Your task to perform on an android device: Open network settings Image 0: 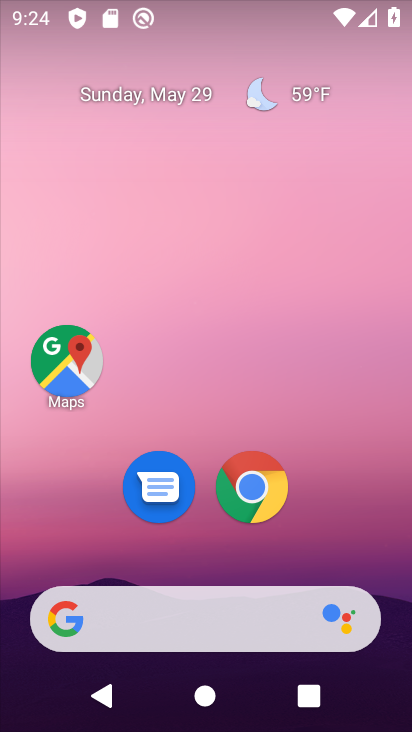
Step 0: drag from (156, 728) to (194, 47)
Your task to perform on an android device: Open network settings Image 1: 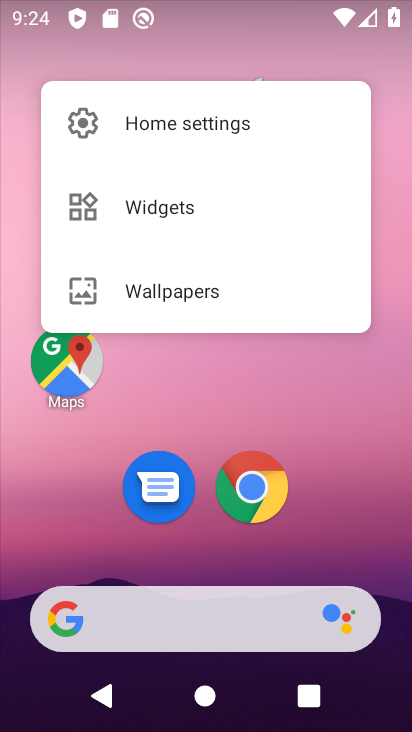
Step 1: click (357, 437)
Your task to perform on an android device: Open network settings Image 2: 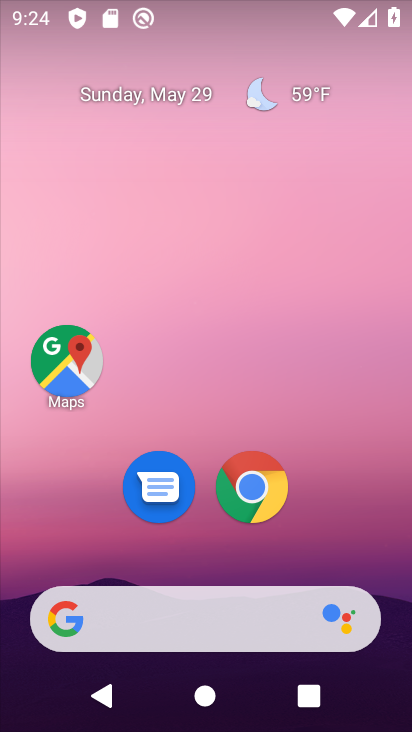
Step 2: drag from (154, 728) to (159, 55)
Your task to perform on an android device: Open network settings Image 3: 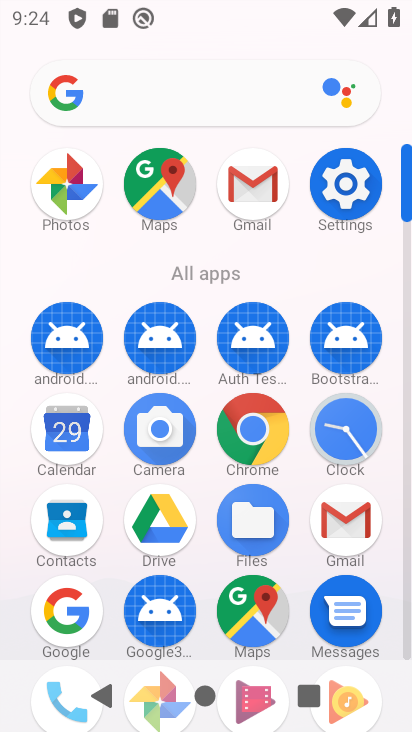
Step 3: click (363, 200)
Your task to perform on an android device: Open network settings Image 4: 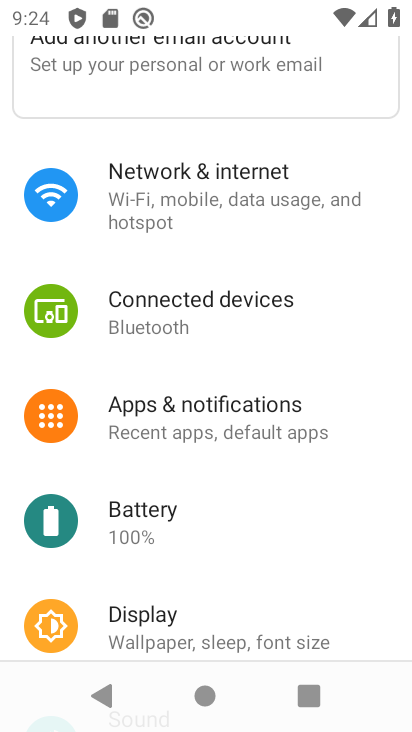
Step 4: click (201, 210)
Your task to perform on an android device: Open network settings Image 5: 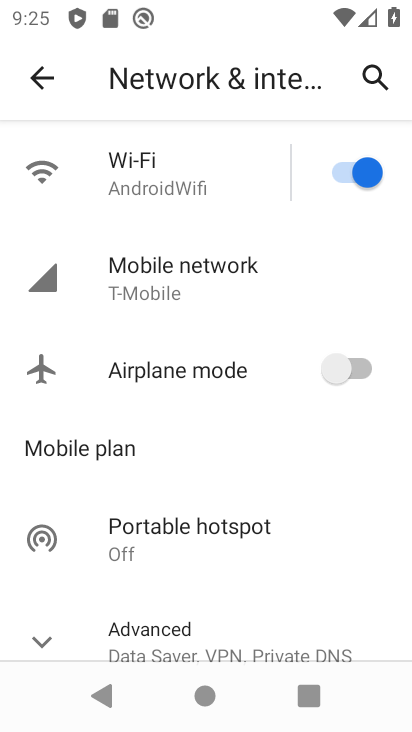
Step 5: drag from (211, 462) to (226, 130)
Your task to perform on an android device: Open network settings Image 6: 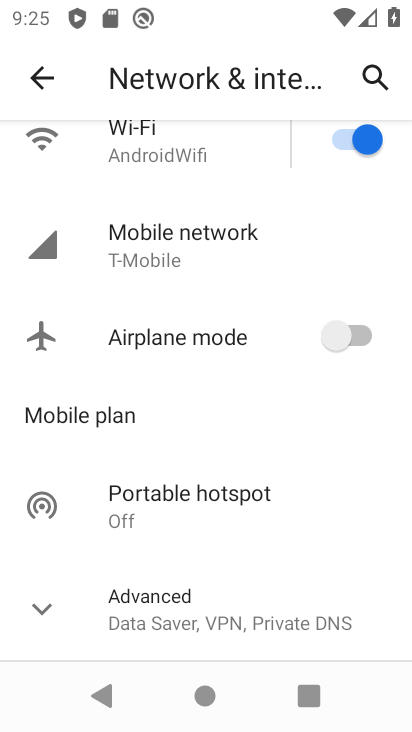
Step 6: click (229, 251)
Your task to perform on an android device: Open network settings Image 7: 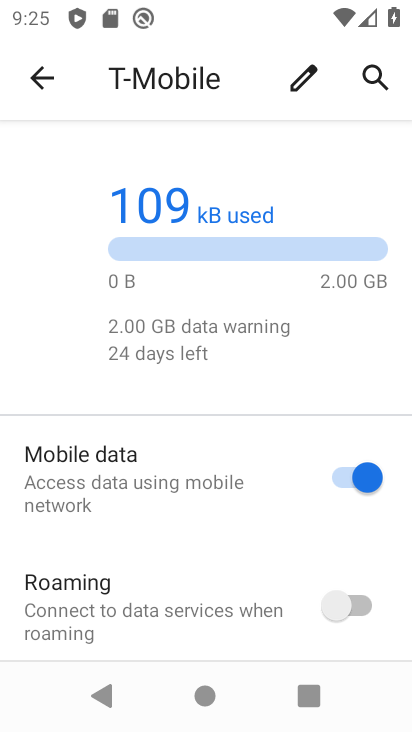
Step 7: drag from (183, 454) to (197, 186)
Your task to perform on an android device: Open network settings Image 8: 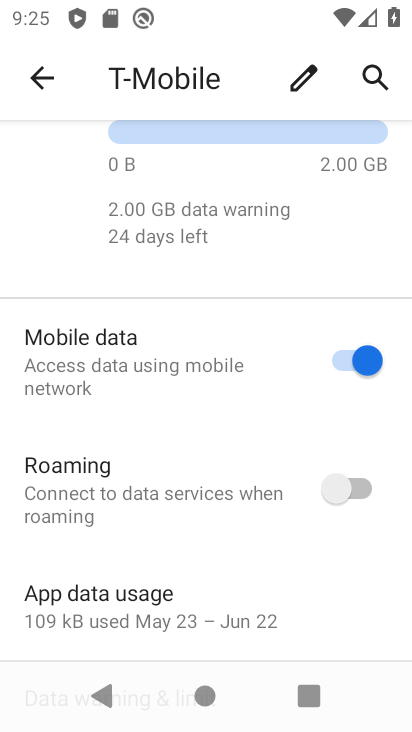
Step 8: drag from (205, 618) to (219, 249)
Your task to perform on an android device: Open network settings Image 9: 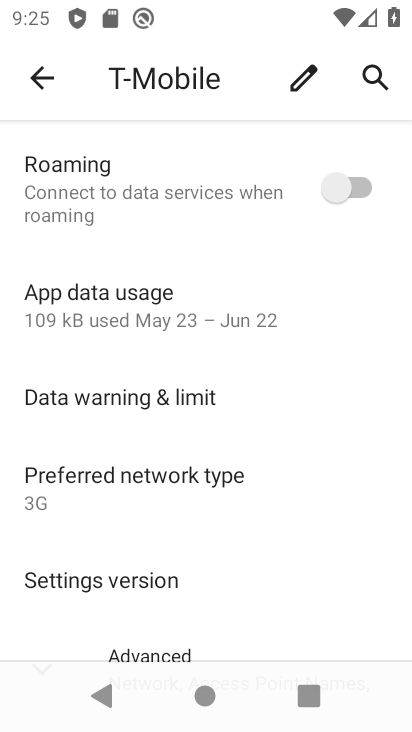
Step 9: drag from (168, 579) to (193, 322)
Your task to perform on an android device: Open network settings Image 10: 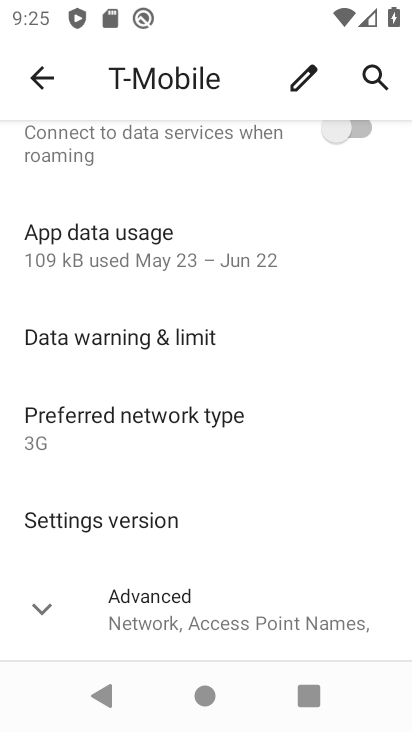
Step 10: click (178, 620)
Your task to perform on an android device: Open network settings Image 11: 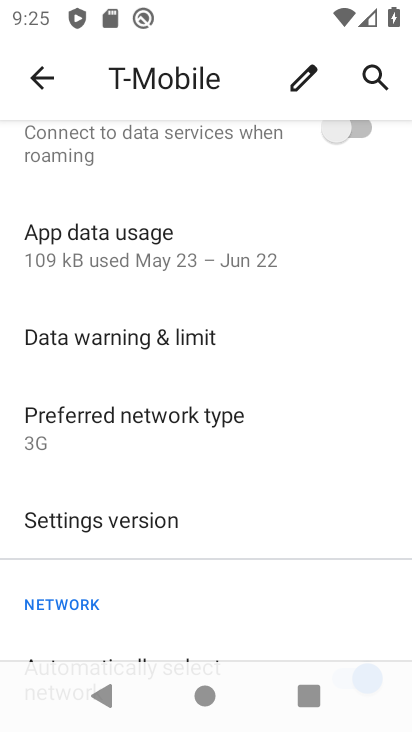
Step 11: task complete